Your task to perform on an android device: Search for Mexican restaurants on Maps Image 0: 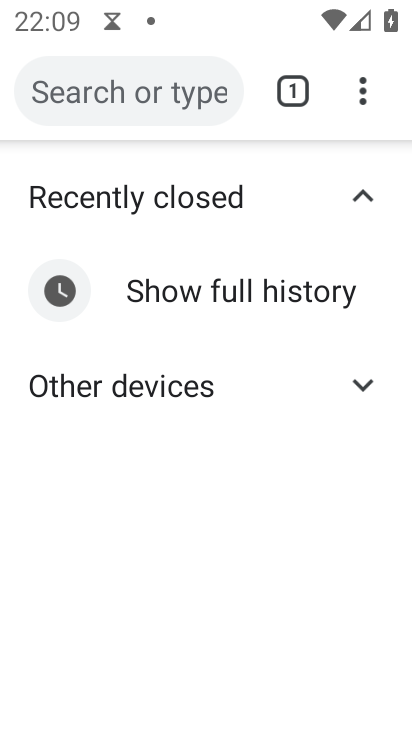
Step 0: press home button
Your task to perform on an android device: Search for Mexican restaurants on Maps Image 1: 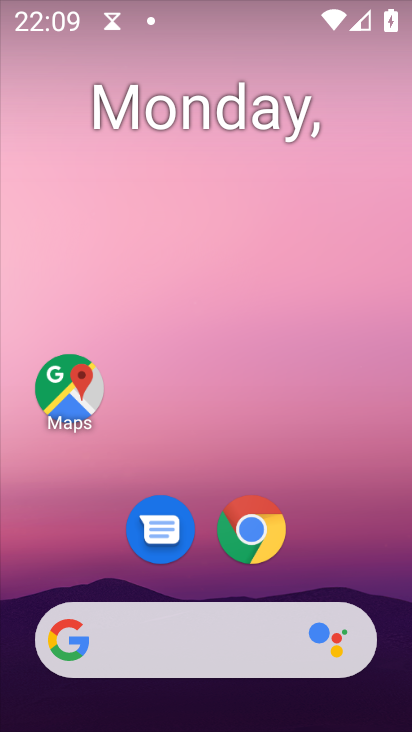
Step 1: click (68, 388)
Your task to perform on an android device: Search for Mexican restaurants on Maps Image 2: 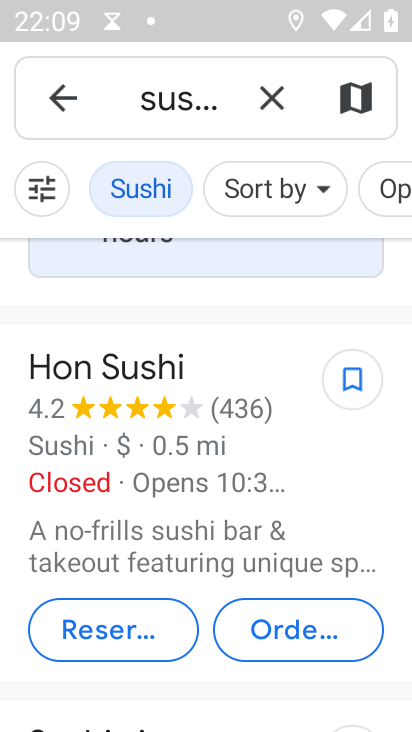
Step 2: click (273, 100)
Your task to perform on an android device: Search for Mexican restaurants on Maps Image 3: 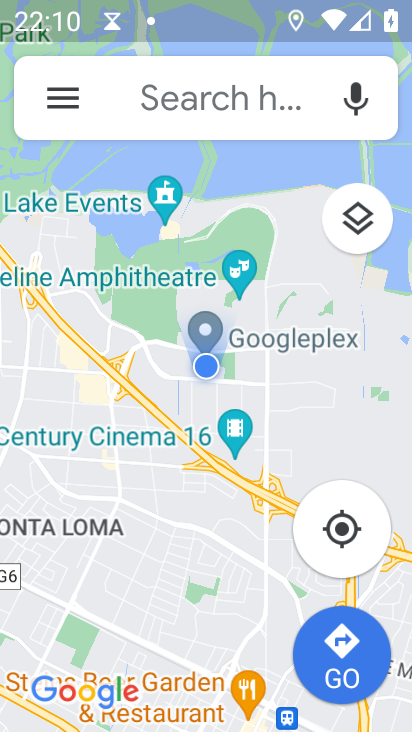
Step 3: type "Mexican restaurants"
Your task to perform on an android device: Search for Mexican restaurants on Maps Image 4: 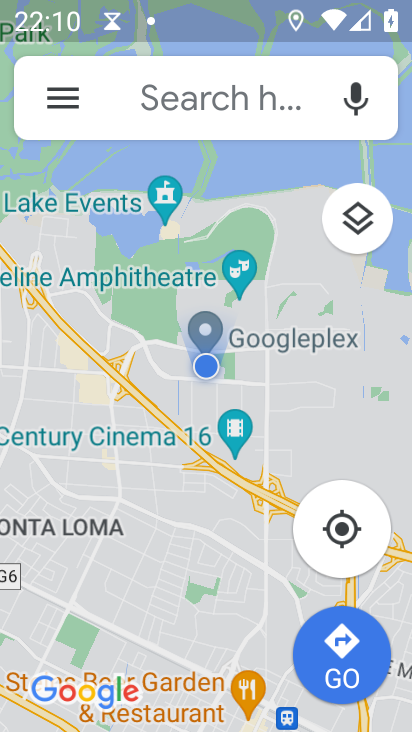
Step 4: click (171, 102)
Your task to perform on an android device: Search for Mexican restaurants on Maps Image 5: 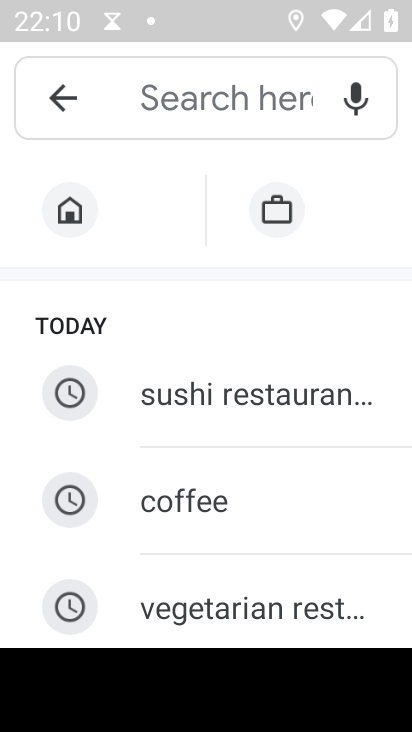
Step 5: drag from (279, 538) to (358, 259)
Your task to perform on an android device: Search for Mexican restaurants on Maps Image 6: 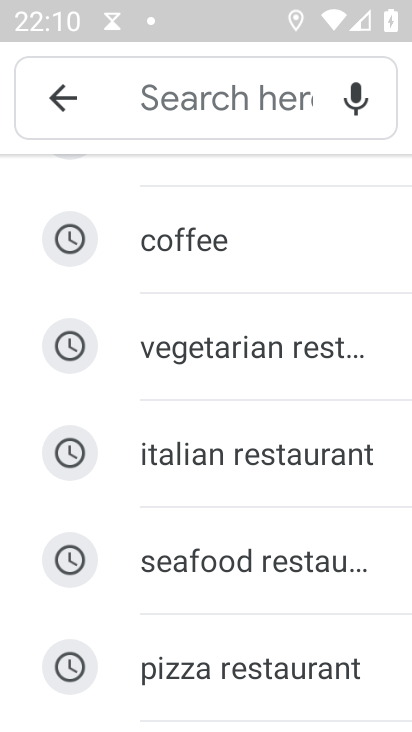
Step 6: drag from (305, 574) to (369, 276)
Your task to perform on an android device: Search for Mexican restaurants on Maps Image 7: 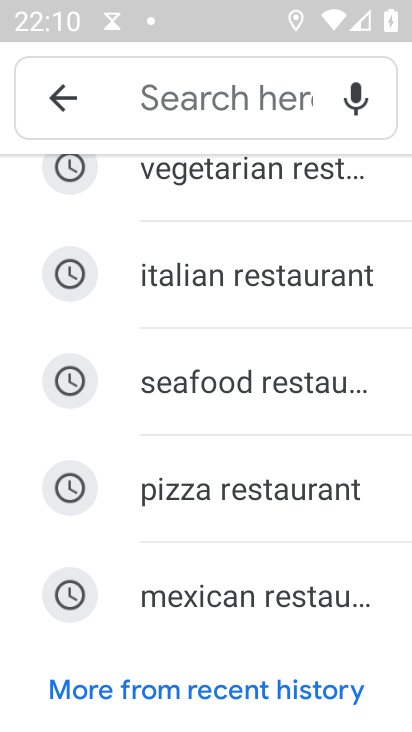
Step 7: click (287, 586)
Your task to perform on an android device: Search for Mexican restaurants on Maps Image 8: 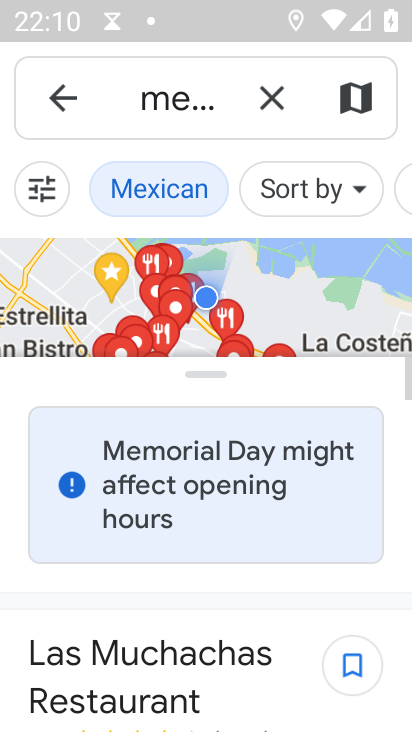
Step 8: task complete